Your task to perform on an android device: set the stopwatch Image 0: 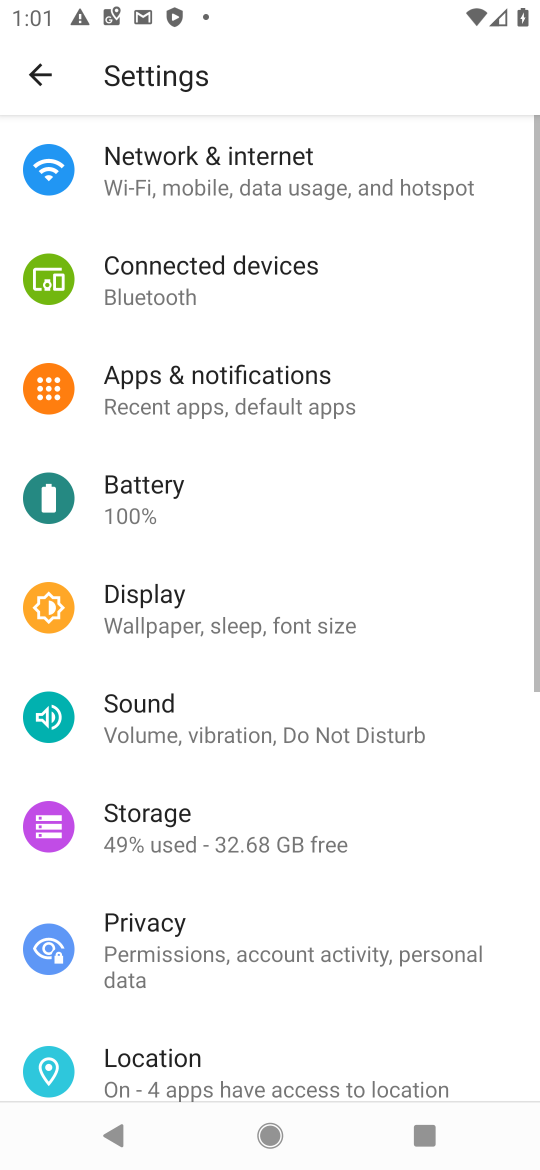
Step 0: drag from (336, 414) to (485, 597)
Your task to perform on an android device: set the stopwatch Image 1: 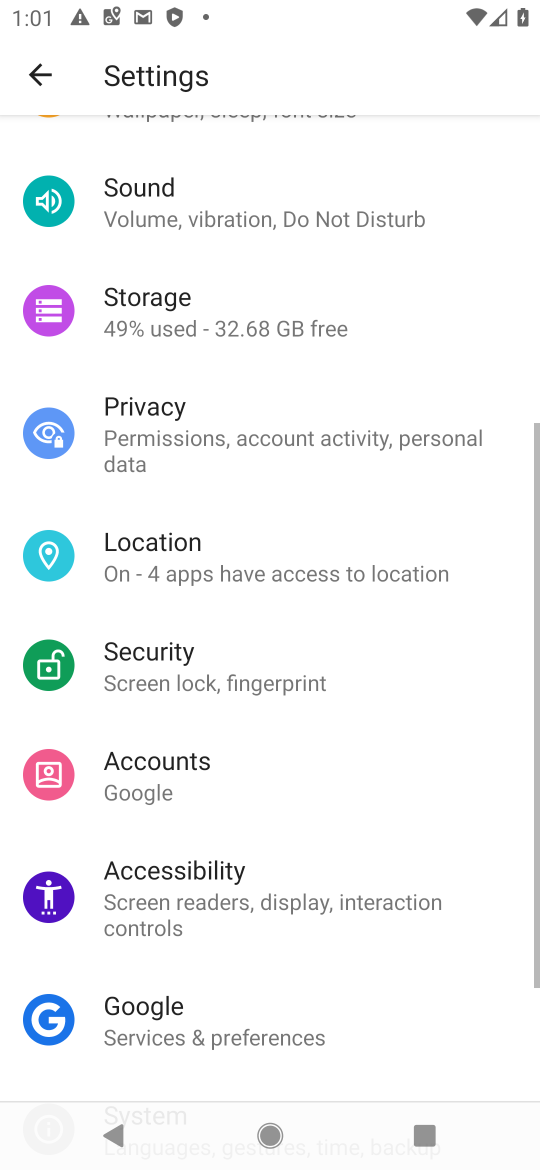
Step 1: drag from (354, 905) to (351, 580)
Your task to perform on an android device: set the stopwatch Image 2: 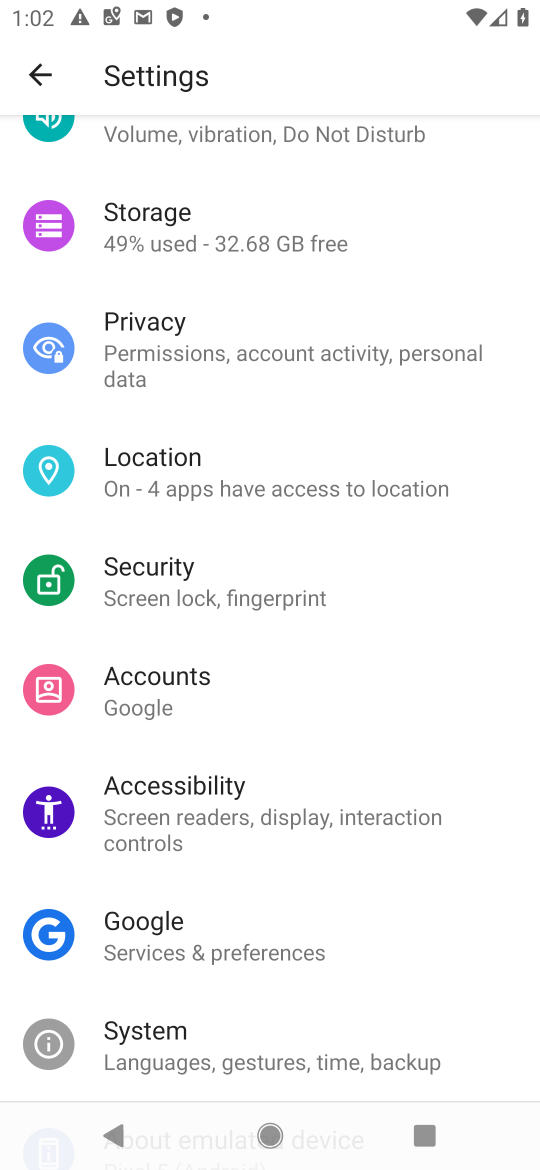
Step 2: press home button
Your task to perform on an android device: set the stopwatch Image 3: 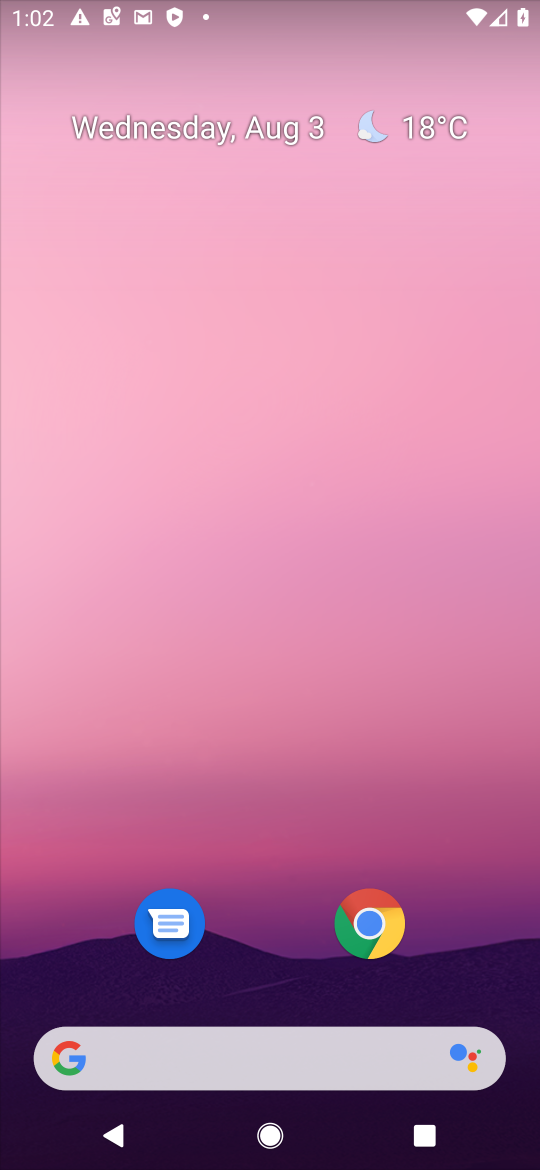
Step 3: drag from (277, 1007) to (294, 458)
Your task to perform on an android device: set the stopwatch Image 4: 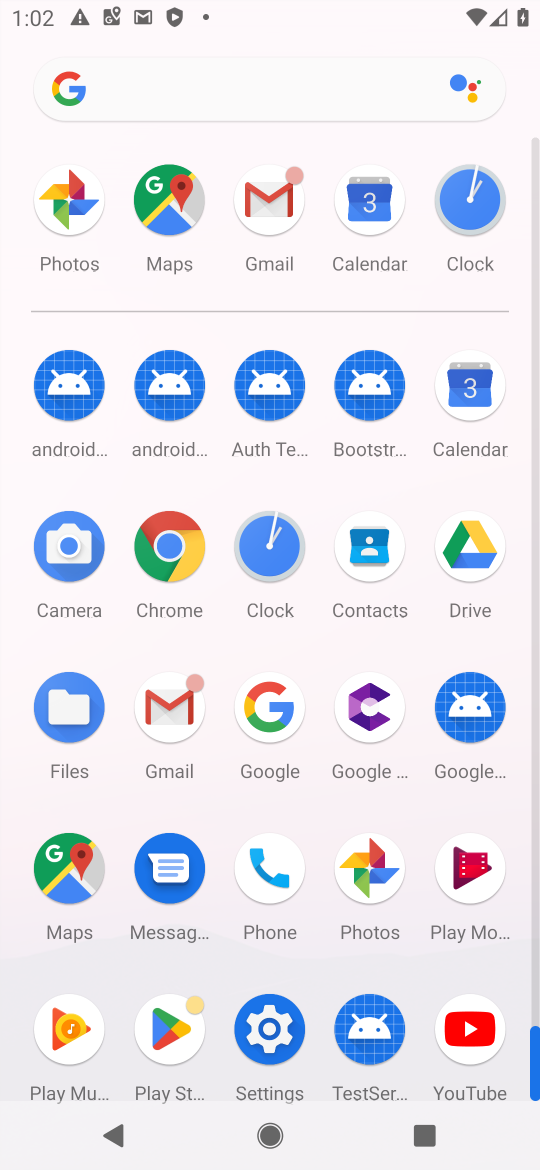
Step 4: click (262, 528)
Your task to perform on an android device: set the stopwatch Image 5: 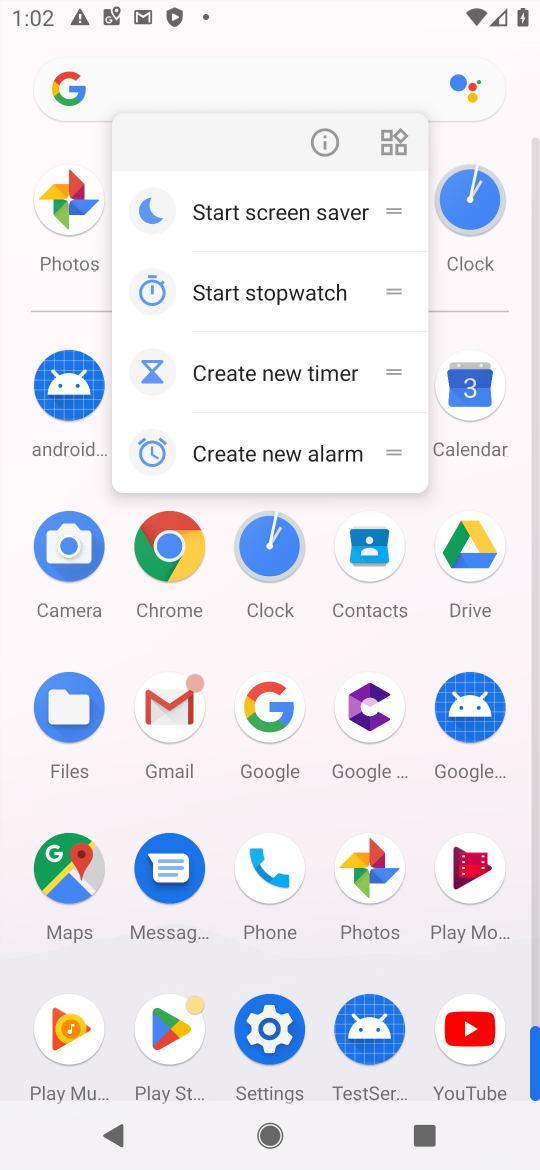
Step 5: click (318, 145)
Your task to perform on an android device: set the stopwatch Image 6: 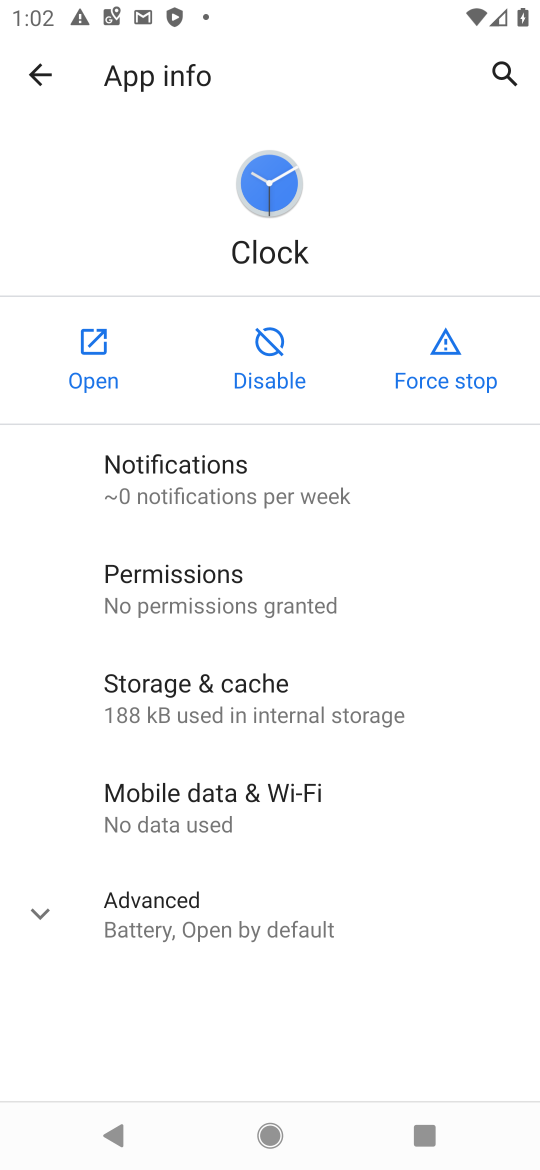
Step 6: click (97, 345)
Your task to perform on an android device: set the stopwatch Image 7: 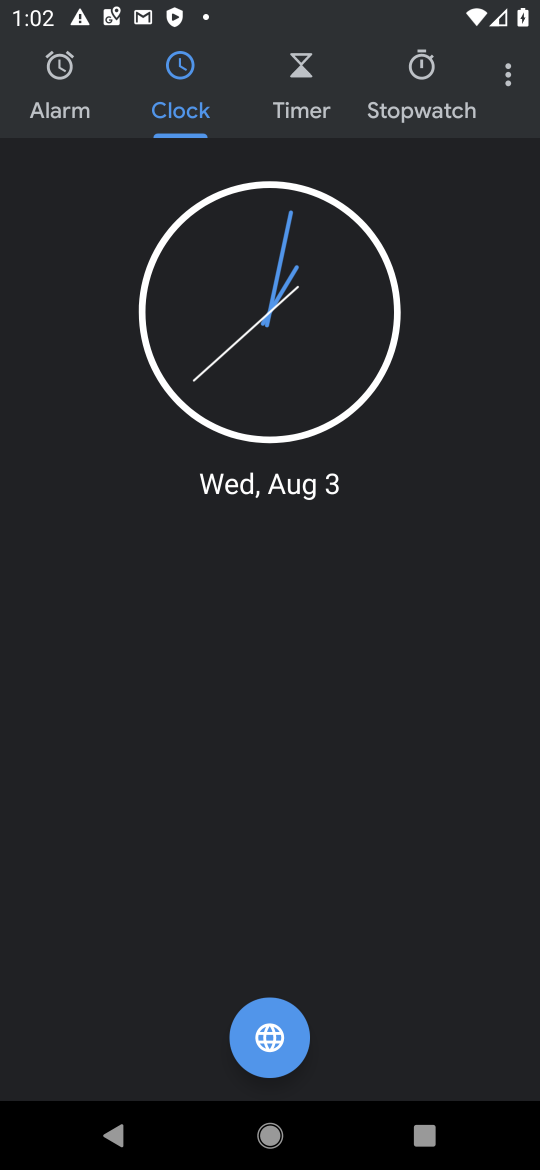
Step 7: drag from (227, 862) to (191, 406)
Your task to perform on an android device: set the stopwatch Image 8: 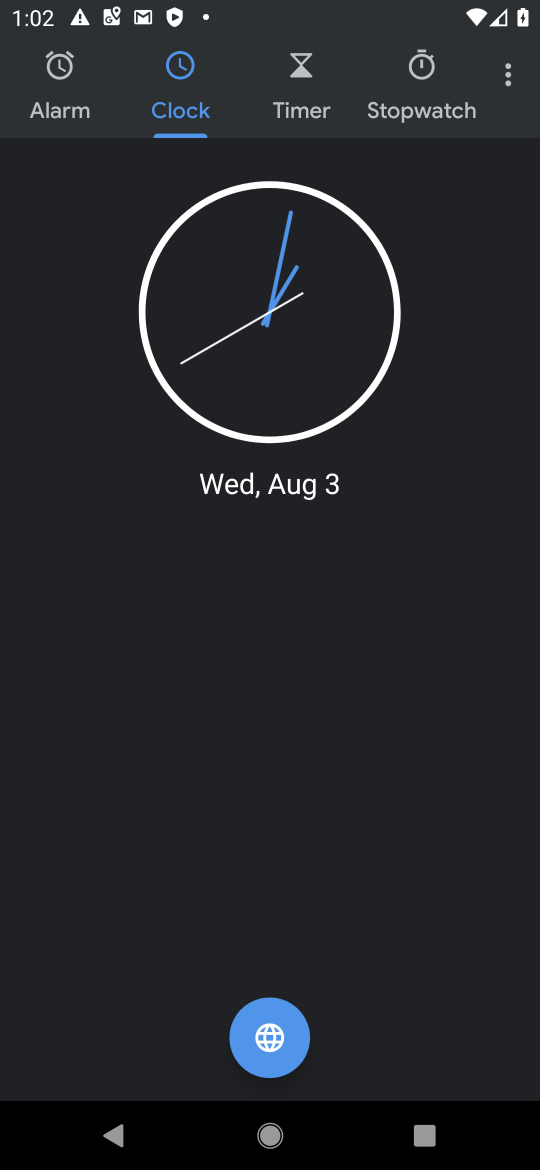
Step 8: drag from (347, 890) to (283, 511)
Your task to perform on an android device: set the stopwatch Image 9: 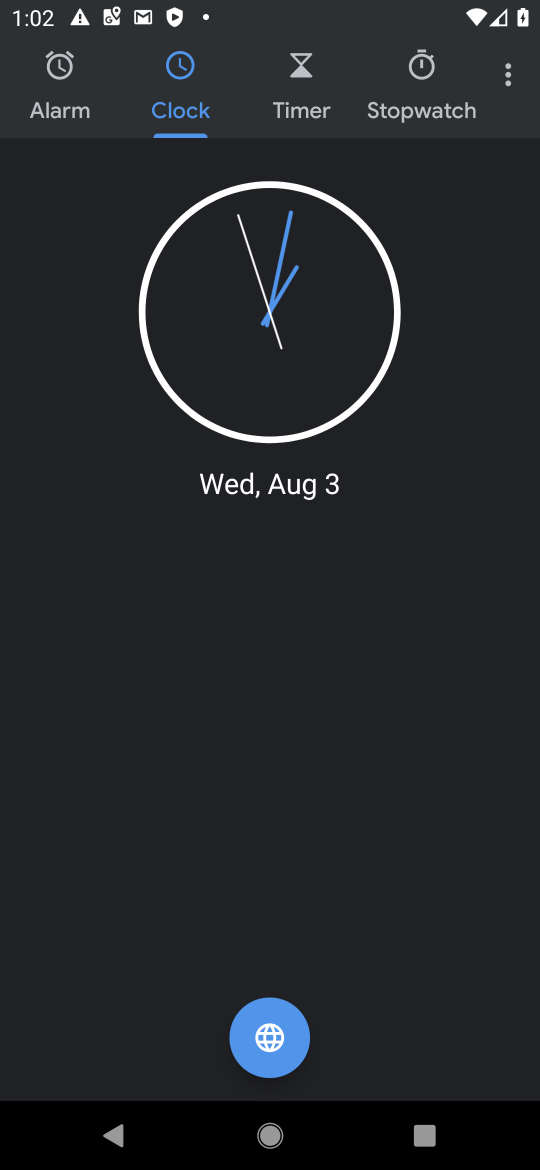
Step 9: drag from (375, 807) to (277, 262)
Your task to perform on an android device: set the stopwatch Image 10: 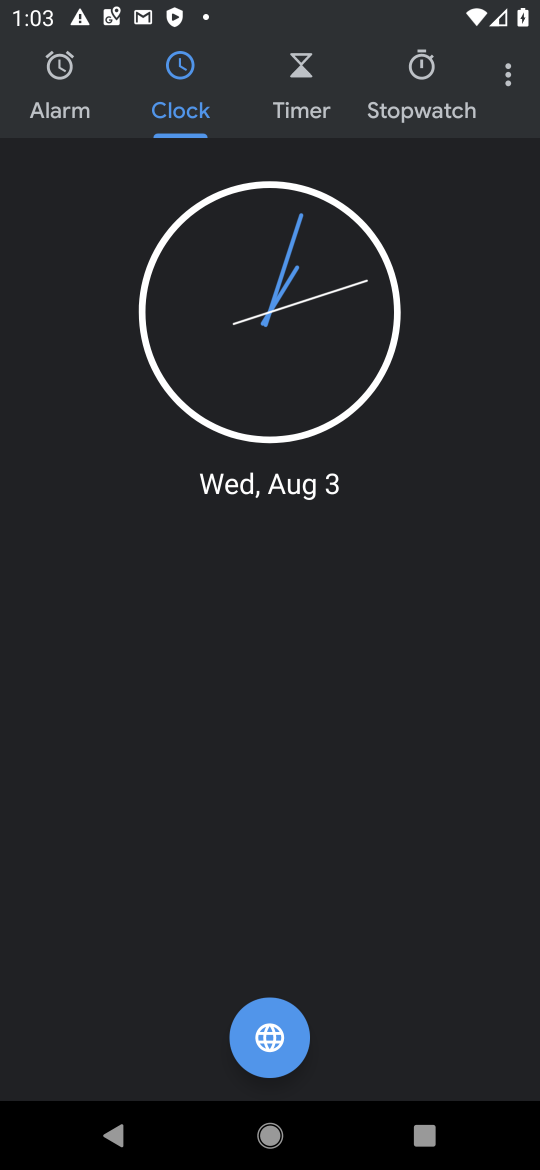
Step 10: click (433, 69)
Your task to perform on an android device: set the stopwatch Image 11: 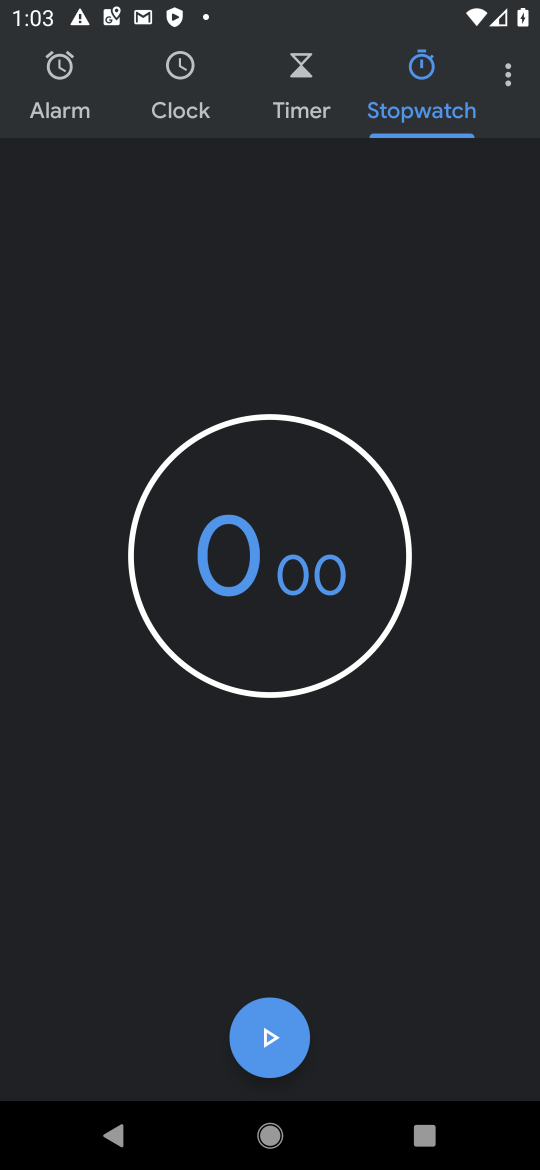
Step 11: click (250, 1026)
Your task to perform on an android device: set the stopwatch Image 12: 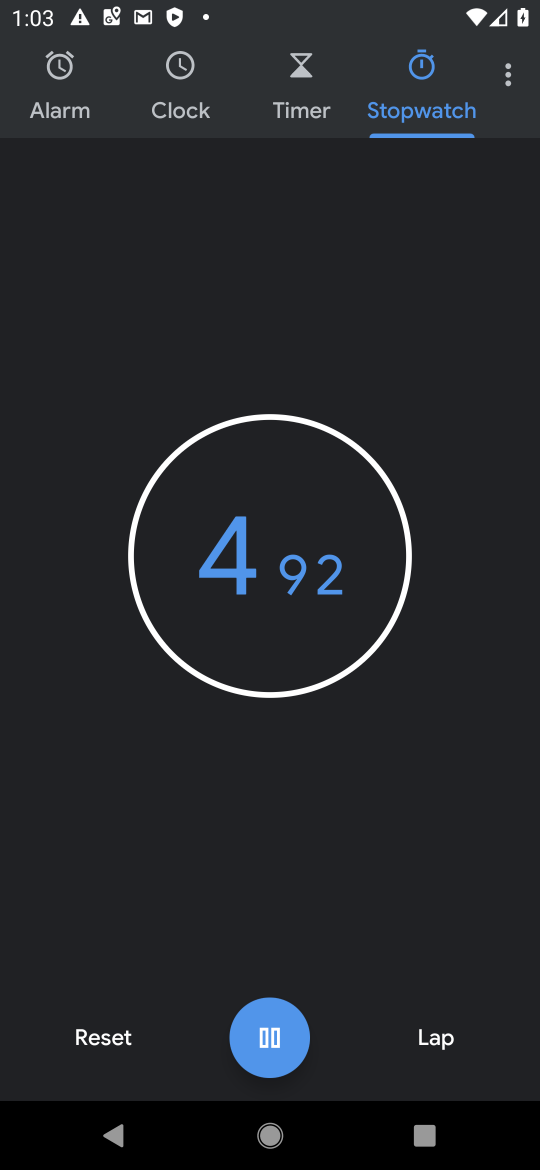
Step 12: task complete